Your task to perform on an android device: Open wifi settings Image 0: 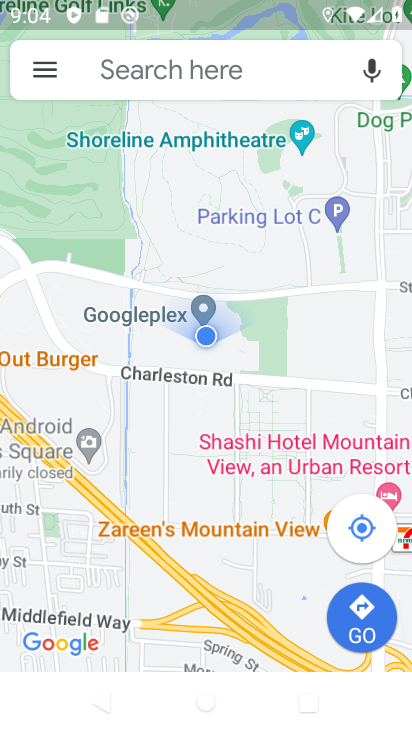
Step 0: press home button
Your task to perform on an android device: Open wifi settings Image 1: 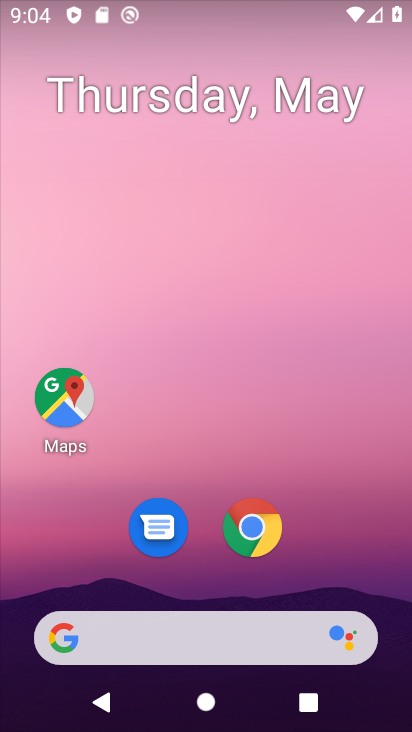
Step 1: drag from (196, 525) to (218, 63)
Your task to perform on an android device: Open wifi settings Image 2: 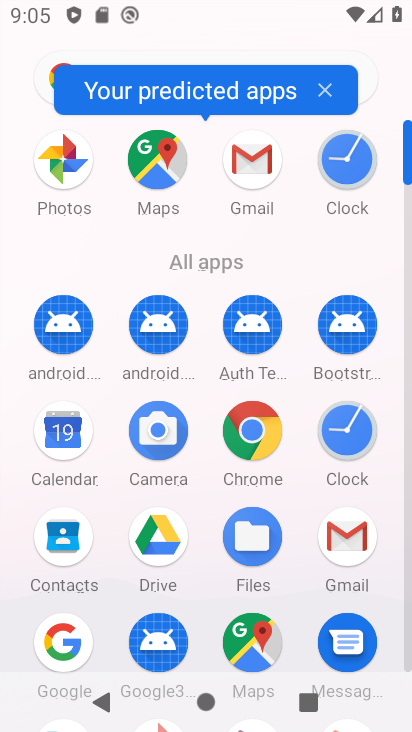
Step 2: drag from (189, 618) to (212, 106)
Your task to perform on an android device: Open wifi settings Image 3: 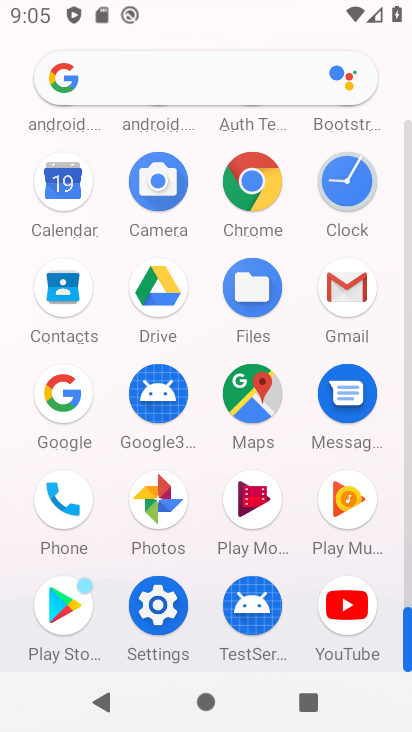
Step 3: click (135, 623)
Your task to perform on an android device: Open wifi settings Image 4: 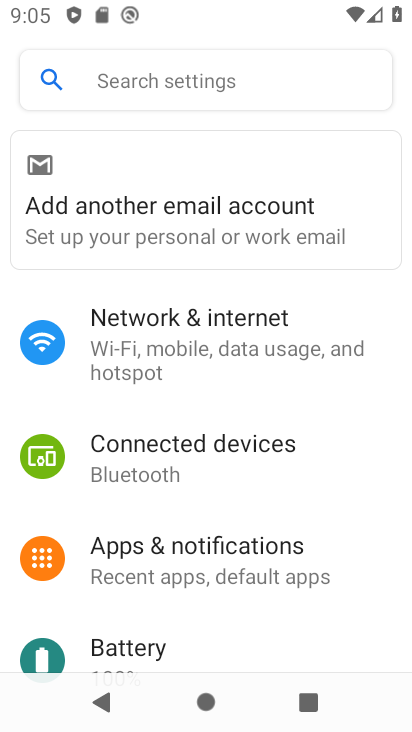
Step 4: click (161, 377)
Your task to perform on an android device: Open wifi settings Image 5: 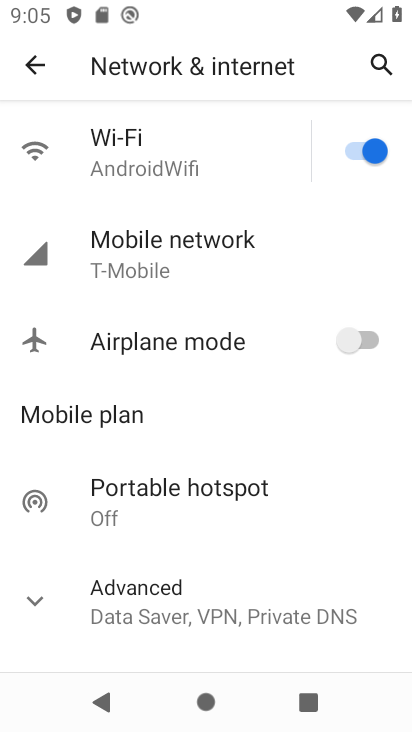
Step 5: click (227, 168)
Your task to perform on an android device: Open wifi settings Image 6: 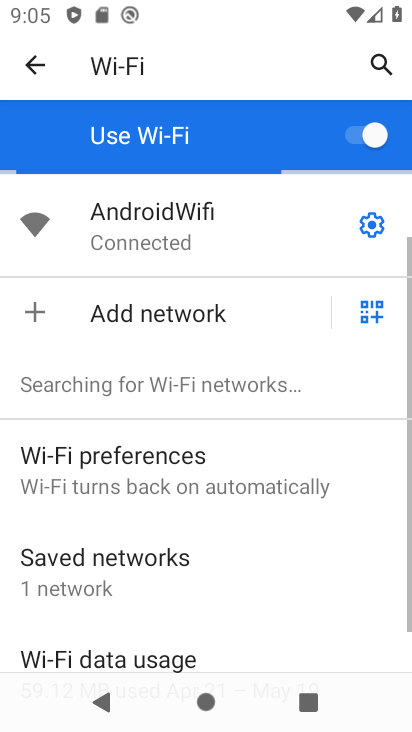
Step 6: task complete